Your task to perform on an android device: see sites visited before in the chrome app Image 0: 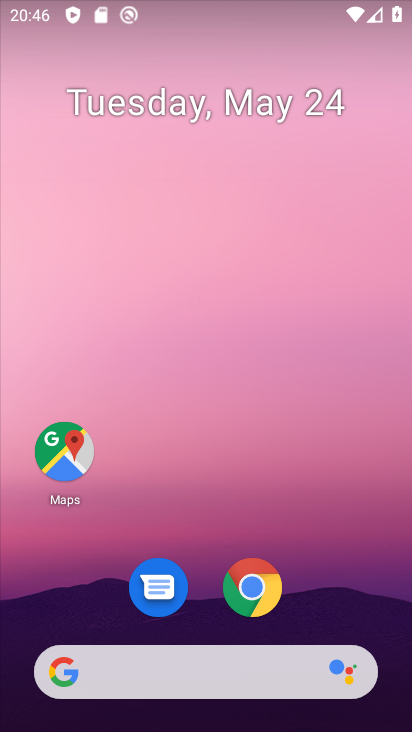
Step 0: drag from (320, 523) to (244, 13)
Your task to perform on an android device: see sites visited before in the chrome app Image 1: 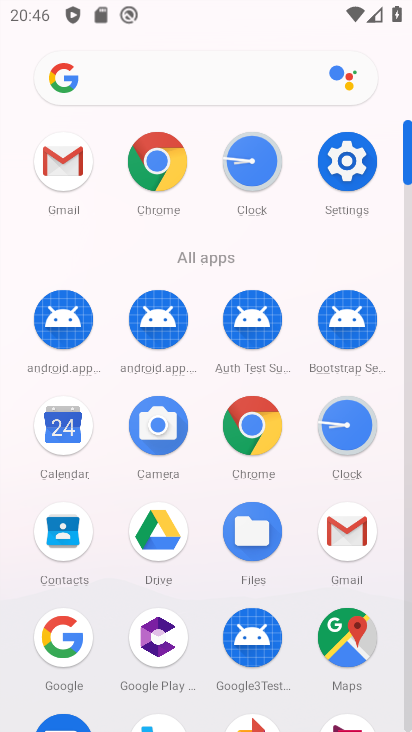
Step 1: drag from (5, 595) to (0, 252)
Your task to perform on an android device: see sites visited before in the chrome app Image 2: 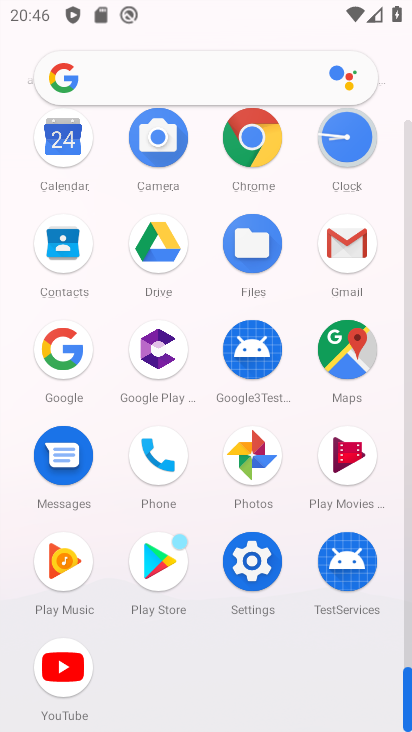
Step 2: click (252, 133)
Your task to perform on an android device: see sites visited before in the chrome app Image 3: 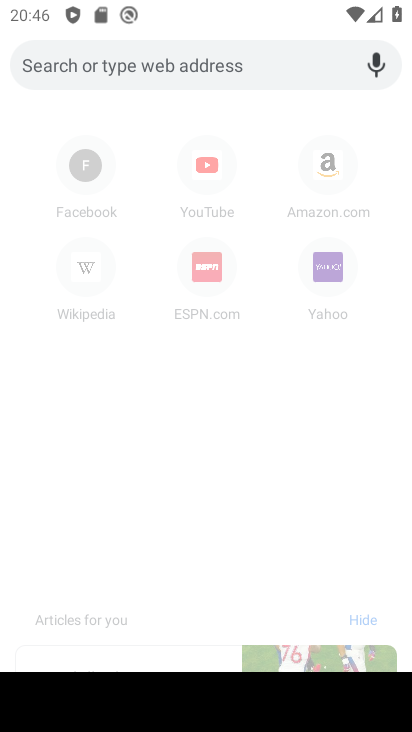
Step 3: task complete